Your task to perform on an android device: check out phone information Image 0: 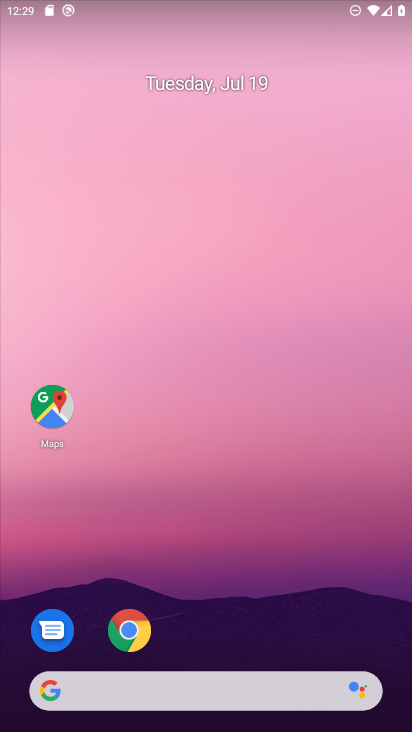
Step 0: press home button
Your task to perform on an android device: check out phone information Image 1: 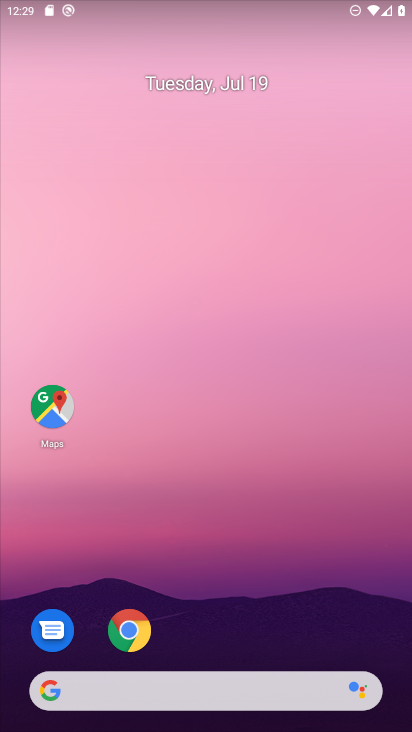
Step 1: drag from (195, 671) to (361, 137)
Your task to perform on an android device: check out phone information Image 2: 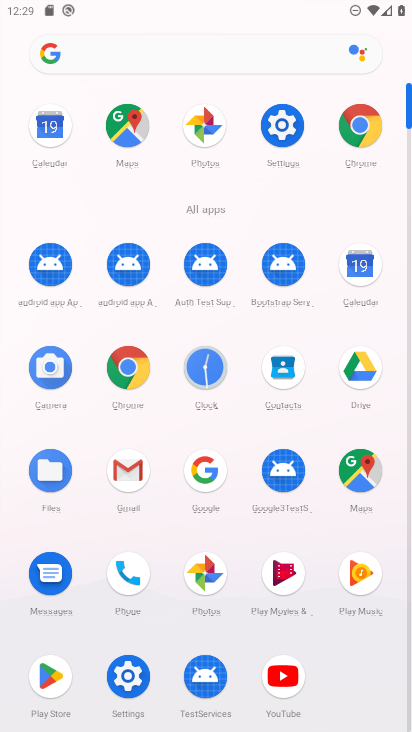
Step 2: click (287, 121)
Your task to perform on an android device: check out phone information Image 3: 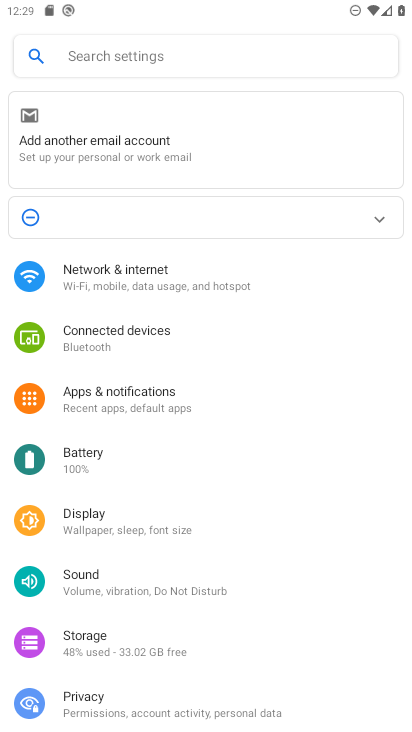
Step 3: drag from (229, 628) to (328, 226)
Your task to perform on an android device: check out phone information Image 4: 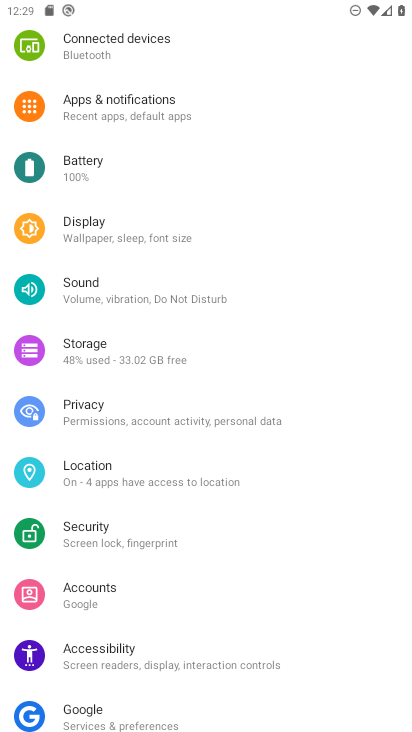
Step 4: drag from (255, 632) to (389, 124)
Your task to perform on an android device: check out phone information Image 5: 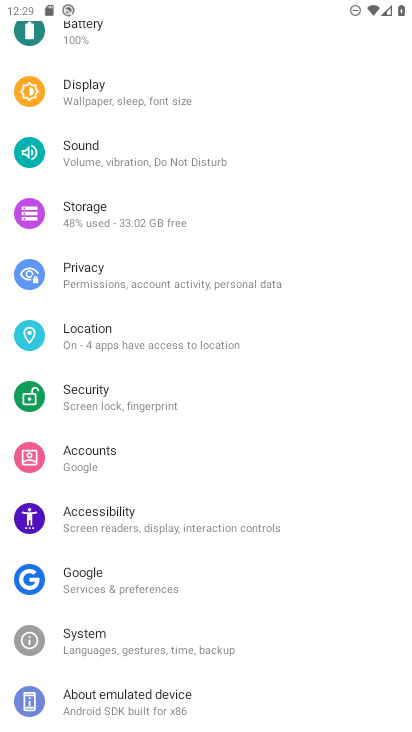
Step 5: click (174, 696)
Your task to perform on an android device: check out phone information Image 6: 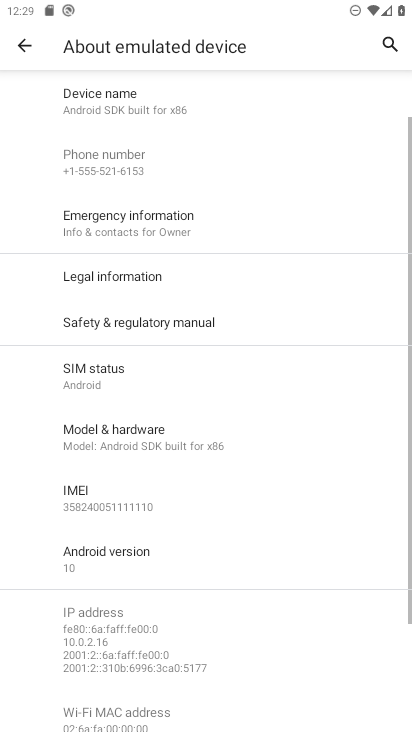
Step 6: task complete